Your task to perform on an android device: Open calendar and show me the first week of next month Image 0: 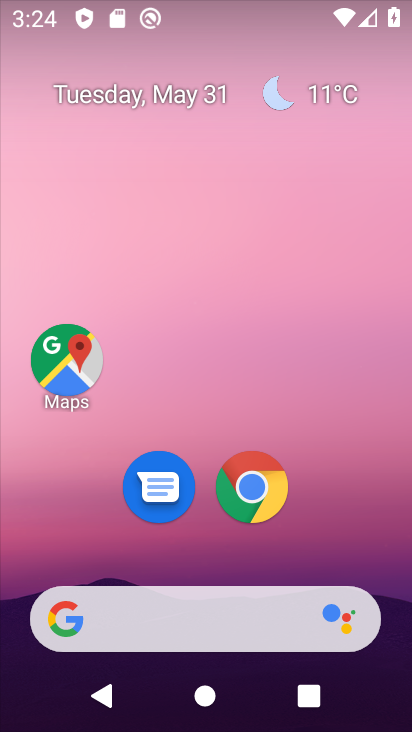
Step 0: drag from (335, 557) to (251, 184)
Your task to perform on an android device: Open calendar and show me the first week of next month Image 1: 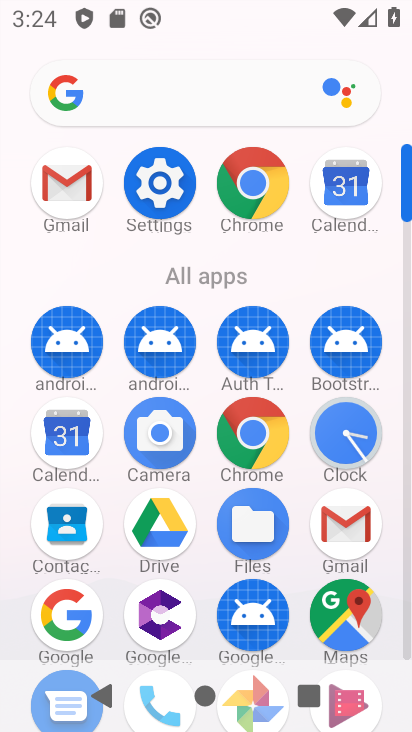
Step 1: click (350, 188)
Your task to perform on an android device: Open calendar and show me the first week of next month Image 2: 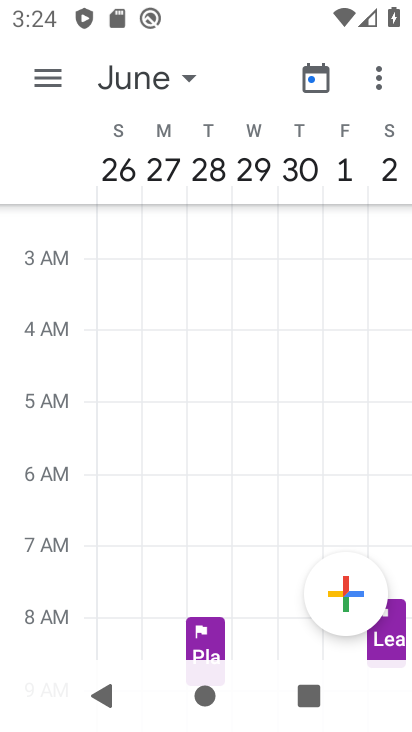
Step 2: click (313, 78)
Your task to perform on an android device: Open calendar and show me the first week of next month Image 3: 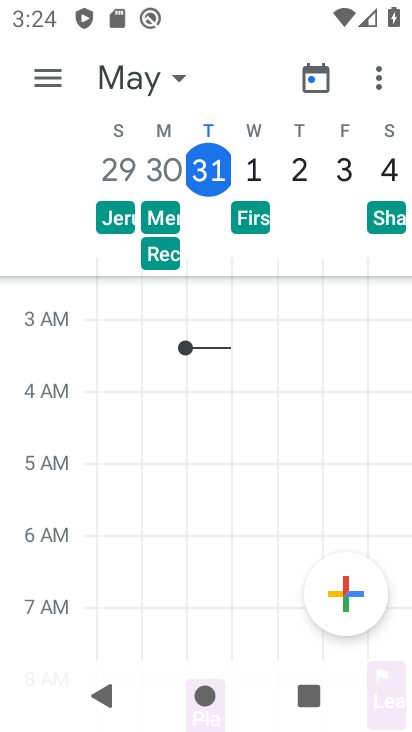
Step 3: click (180, 81)
Your task to perform on an android device: Open calendar and show me the first week of next month Image 4: 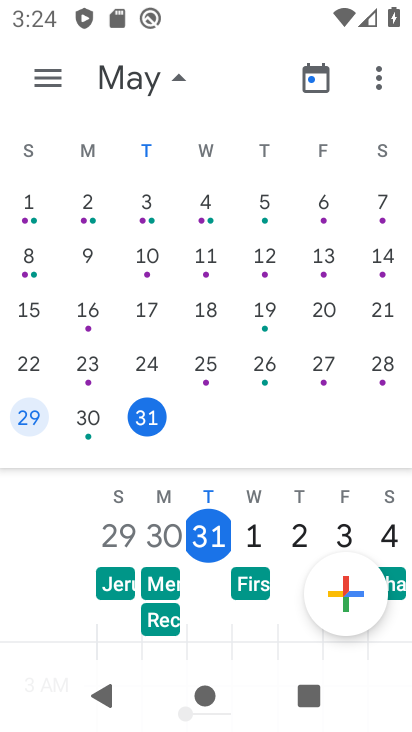
Step 4: drag from (378, 332) to (120, 314)
Your task to perform on an android device: Open calendar and show me the first week of next month Image 5: 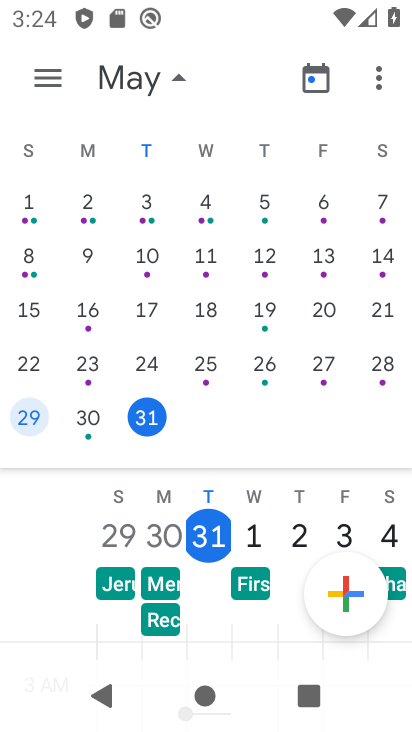
Step 5: drag from (385, 278) to (0, 292)
Your task to perform on an android device: Open calendar and show me the first week of next month Image 6: 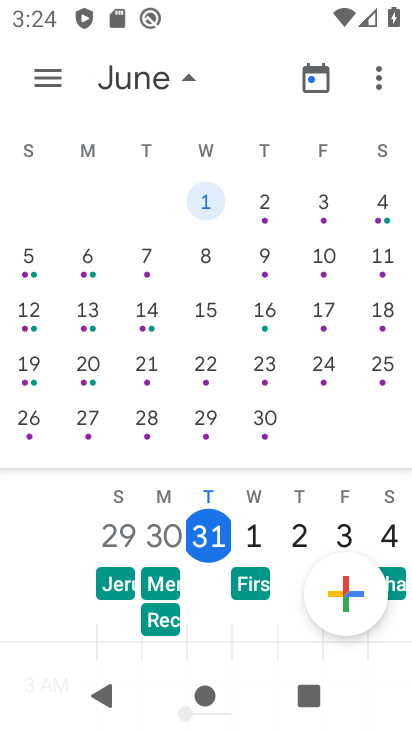
Step 6: click (97, 261)
Your task to perform on an android device: Open calendar and show me the first week of next month Image 7: 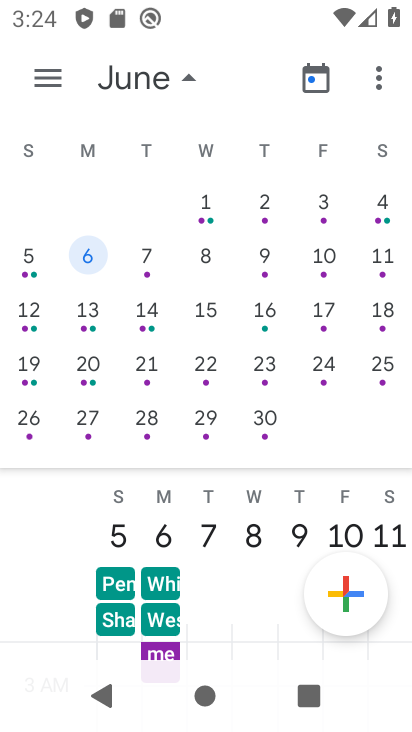
Step 7: click (52, 76)
Your task to perform on an android device: Open calendar and show me the first week of next month Image 8: 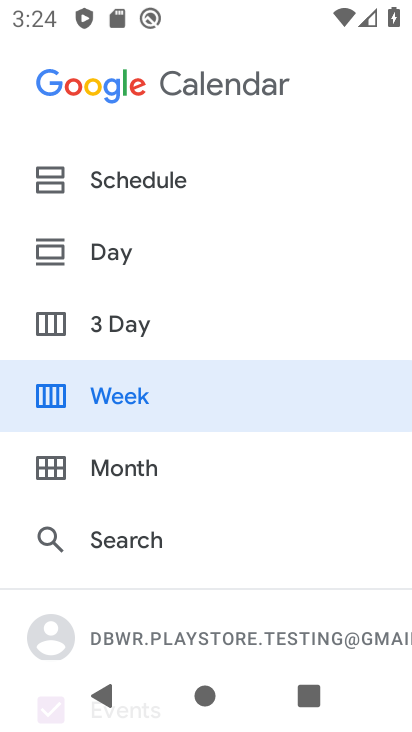
Step 8: click (116, 367)
Your task to perform on an android device: Open calendar and show me the first week of next month Image 9: 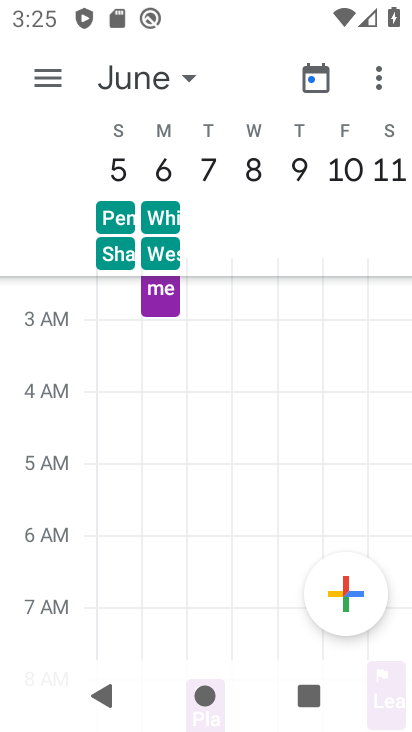
Step 9: task complete